Your task to perform on an android device: Open the stopwatch Image 0: 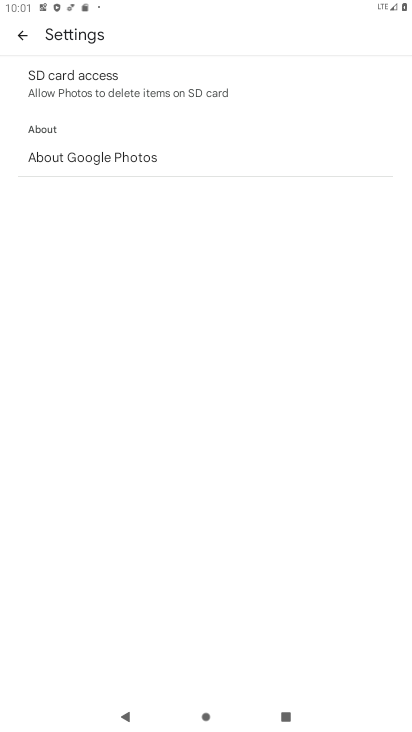
Step 0: press home button
Your task to perform on an android device: Open the stopwatch Image 1: 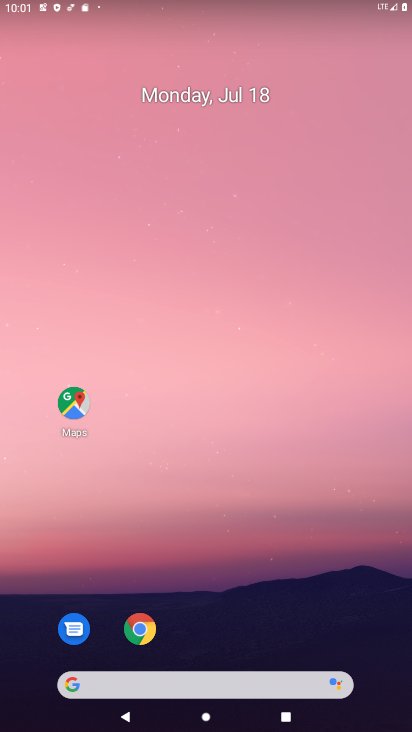
Step 1: drag from (214, 683) to (107, 261)
Your task to perform on an android device: Open the stopwatch Image 2: 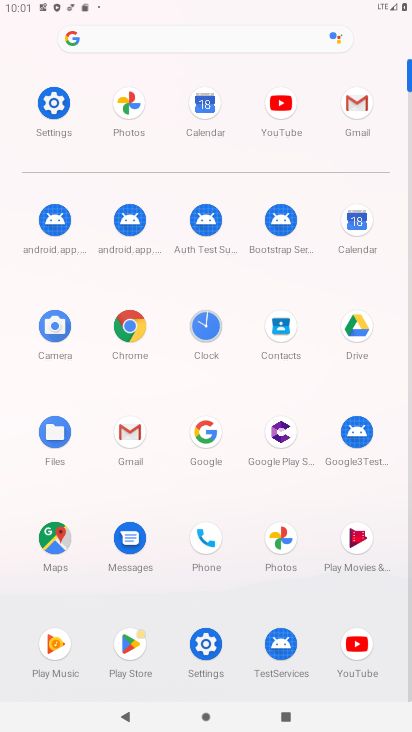
Step 2: click (204, 326)
Your task to perform on an android device: Open the stopwatch Image 3: 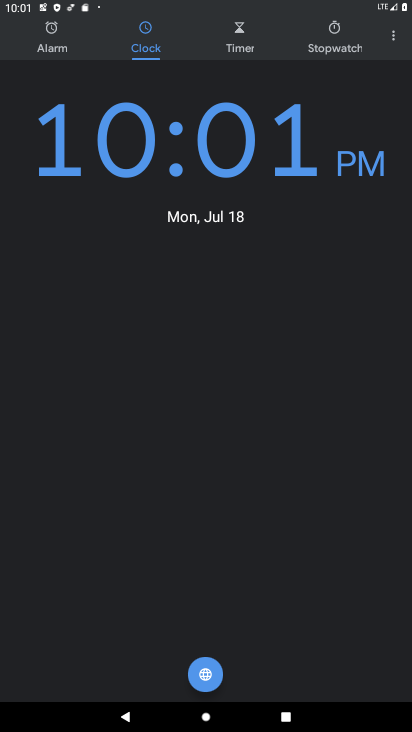
Step 3: click (333, 35)
Your task to perform on an android device: Open the stopwatch Image 4: 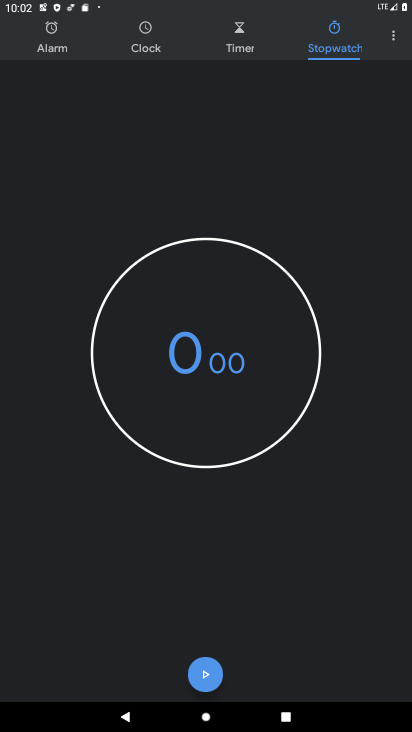
Step 4: task complete